Your task to perform on an android device: Open CNN.com Image 0: 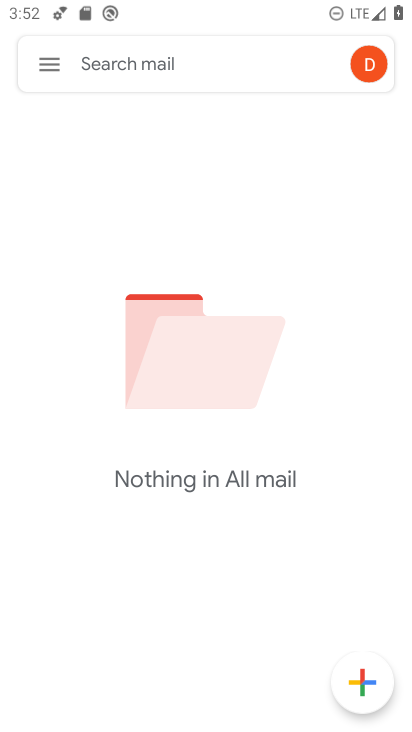
Step 0: press home button
Your task to perform on an android device: Open CNN.com Image 1: 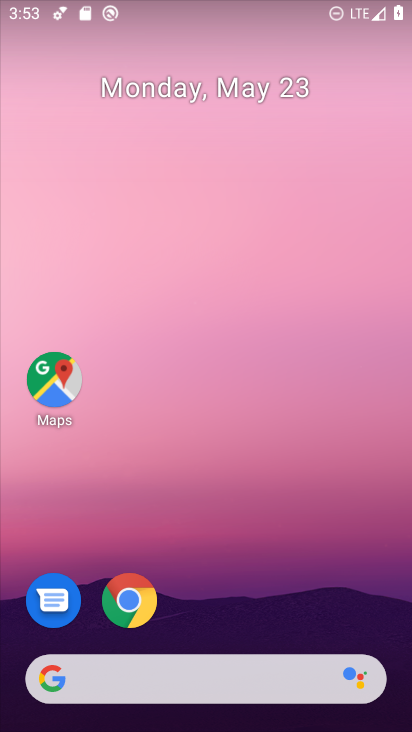
Step 1: click (126, 597)
Your task to perform on an android device: Open CNN.com Image 2: 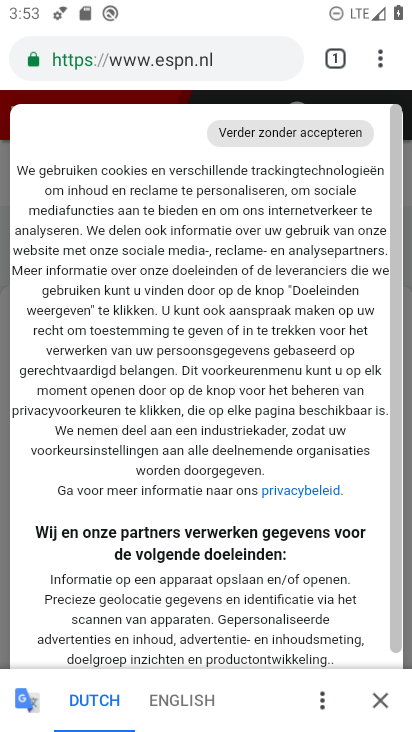
Step 2: click (276, 57)
Your task to perform on an android device: Open CNN.com Image 3: 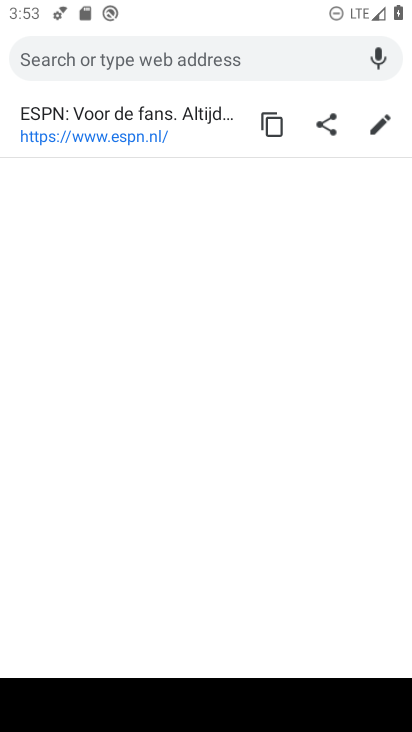
Step 3: type "cnn.com"
Your task to perform on an android device: Open CNN.com Image 4: 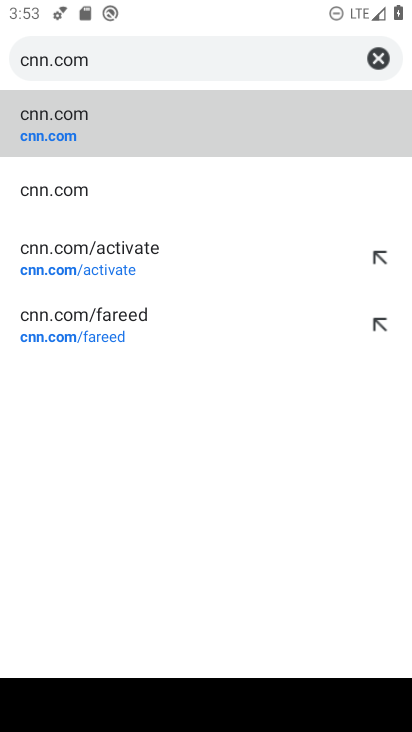
Step 4: click (50, 126)
Your task to perform on an android device: Open CNN.com Image 5: 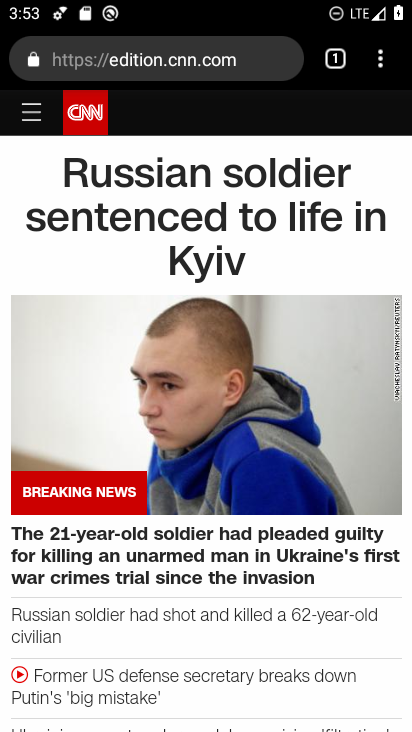
Step 5: task complete